Your task to perform on an android device: Go to network settings Image 0: 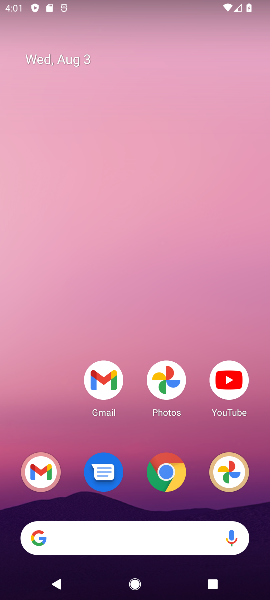
Step 0: drag from (208, 500) to (49, 68)
Your task to perform on an android device: Go to network settings Image 1: 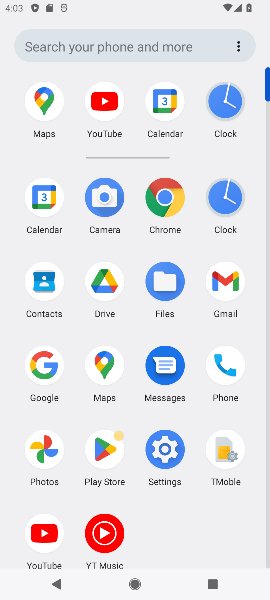
Step 1: click (164, 444)
Your task to perform on an android device: Go to network settings Image 2: 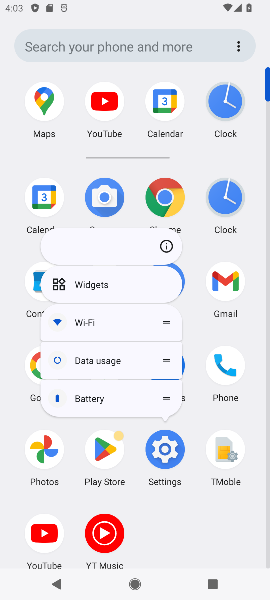
Step 2: click (164, 444)
Your task to perform on an android device: Go to network settings Image 3: 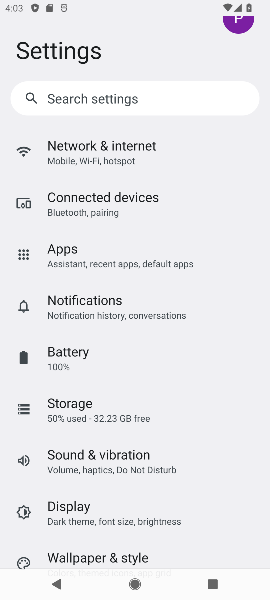
Step 3: click (86, 153)
Your task to perform on an android device: Go to network settings Image 4: 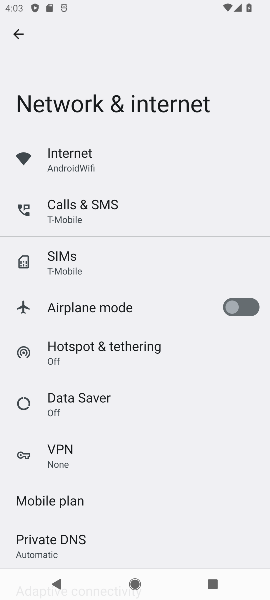
Step 4: task complete